Your task to perform on an android device: turn pop-ups off in chrome Image 0: 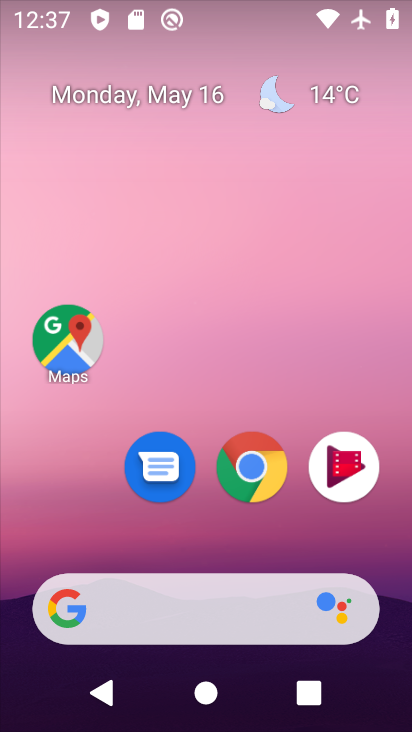
Step 0: drag from (230, 524) to (315, 179)
Your task to perform on an android device: turn pop-ups off in chrome Image 1: 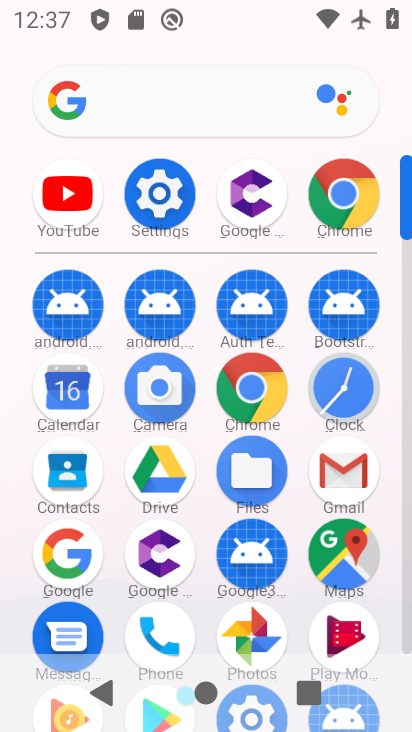
Step 1: click (314, 197)
Your task to perform on an android device: turn pop-ups off in chrome Image 2: 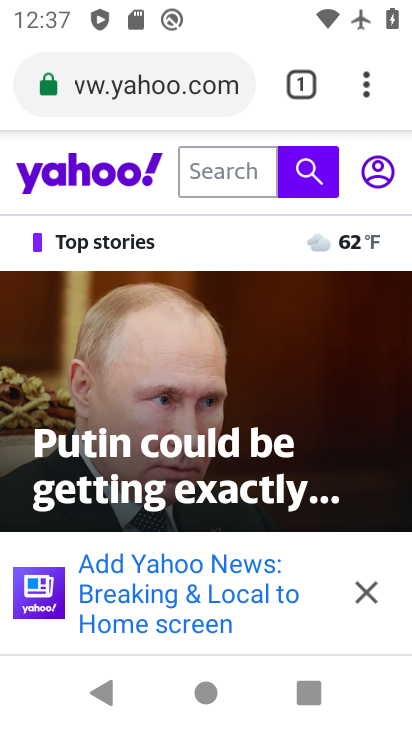
Step 2: click (357, 82)
Your task to perform on an android device: turn pop-ups off in chrome Image 3: 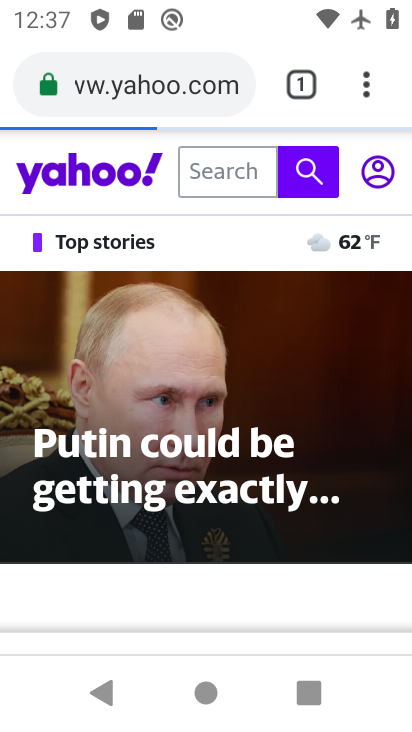
Step 3: click (358, 83)
Your task to perform on an android device: turn pop-ups off in chrome Image 4: 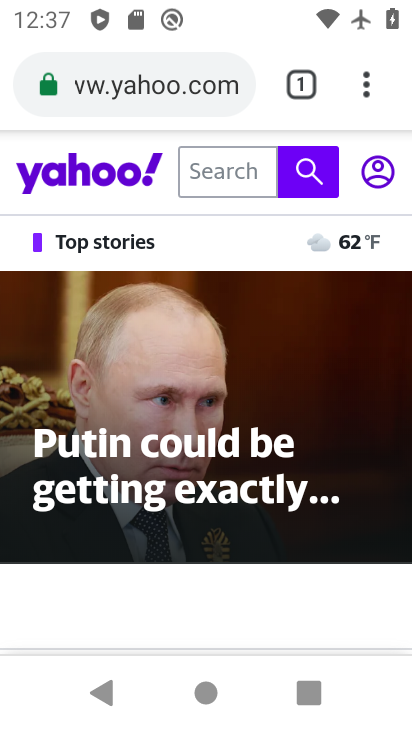
Step 4: click (358, 83)
Your task to perform on an android device: turn pop-ups off in chrome Image 5: 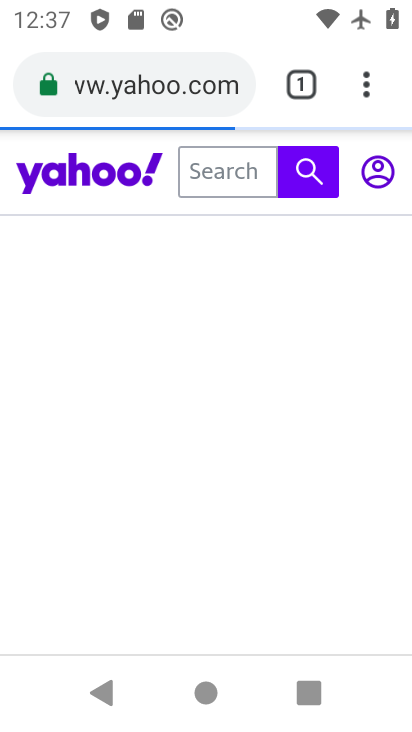
Step 5: click (371, 94)
Your task to perform on an android device: turn pop-ups off in chrome Image 6: 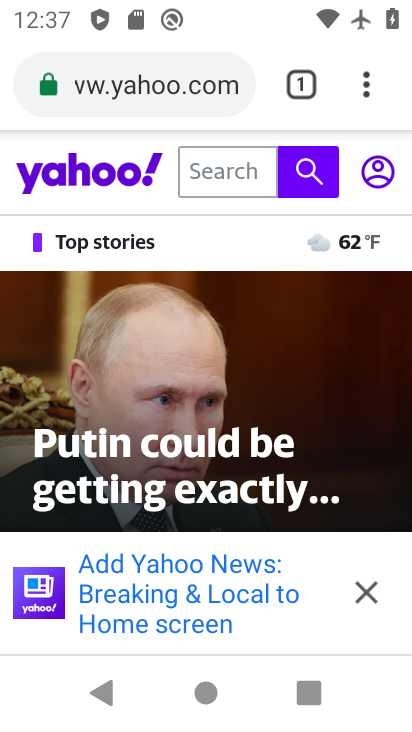
Step 6: click (391, 72)
Your task to perform on an android device: turn pop-ups off in chrome Image 7: 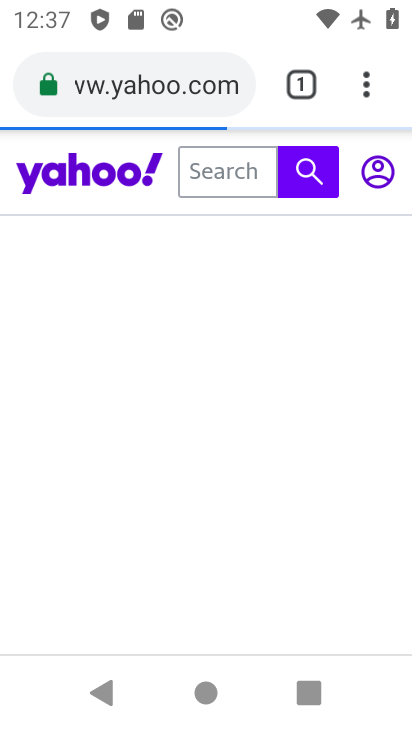
Step 7: click (360, 72)
Your task to perform on an android device: turn pop-ups off in chrome Image 8: 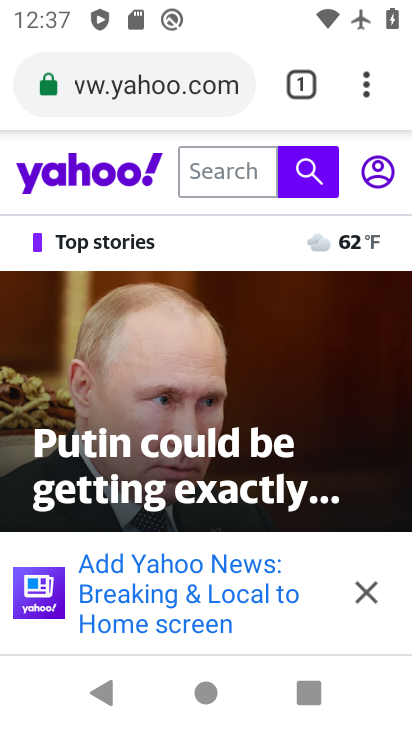
Step 8: click (359, 73)
Your task to perform on an android device: turn pop-ups off in chrome Image 9: 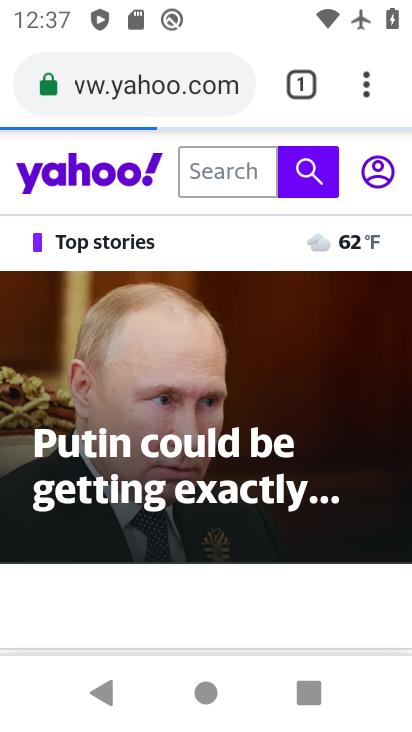
Step 9: click (350, 86)
Your task to perform on an android device: turn pop-ups off in chrome Image 10: 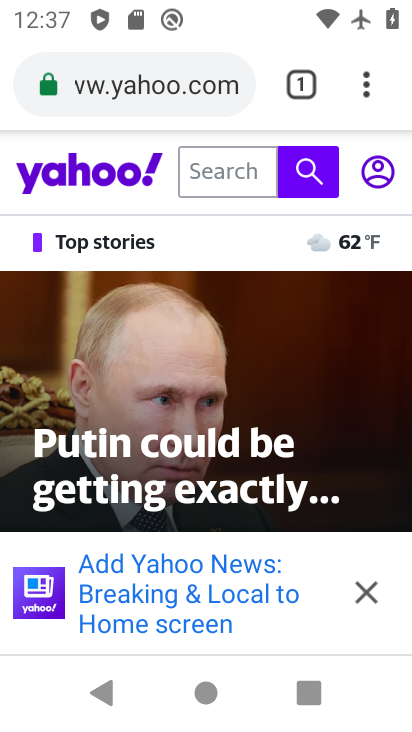
Step 10: click (353, 85)
Your task to perform on an android device: turn pop-ups off in chrome Image 11: 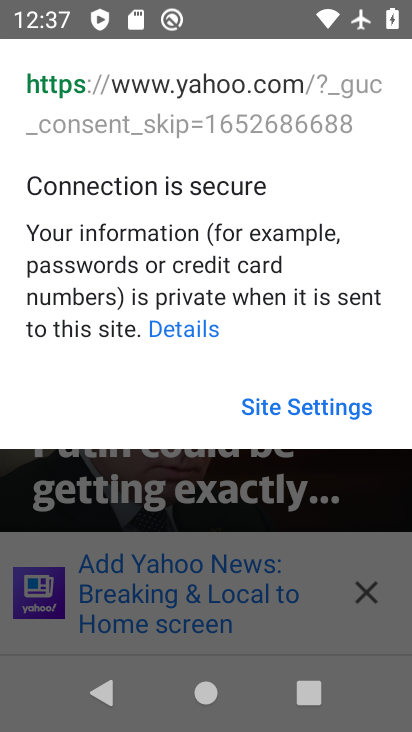
Step 11: click (277, 399)
Your task to perform on an android device: turn pop-ups off in chrome Image 12: 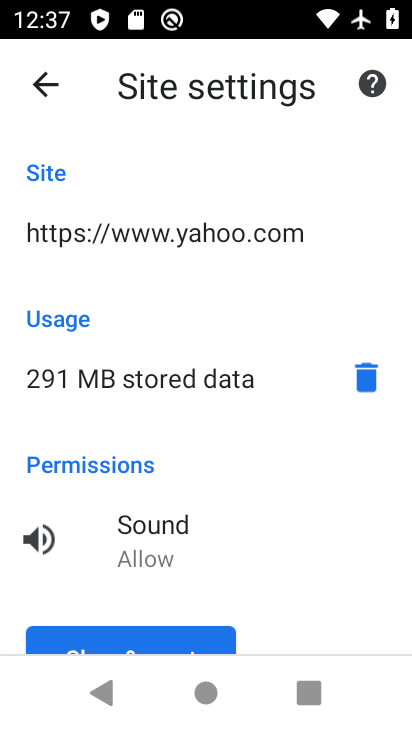
Step 12: press back button
Your task to perform on an android device: turn pop-ups off in chrome Image 13: 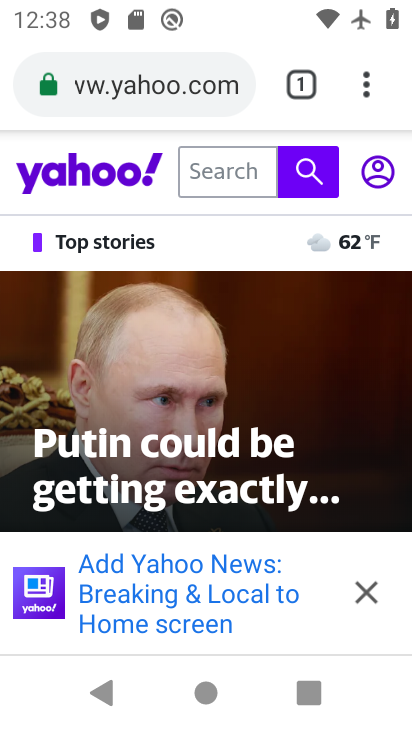
Step 13: click (360, 80)
Your task to perform on an android device: turn pop-ups off in chrome Image 14: 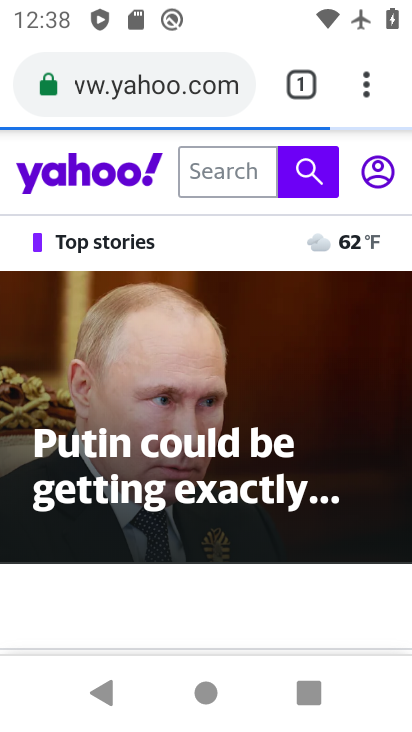
Step 14: click (363, 83)
Your task to perform on an android device: turn pop-ups off in chrome Image 15: 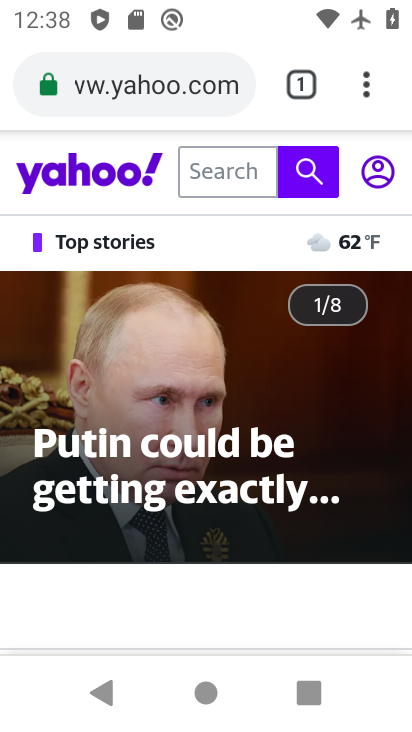
Step 15: click (364, 86)
Your task to perform on an android device: turn pop-ups off in chrome Image 16: 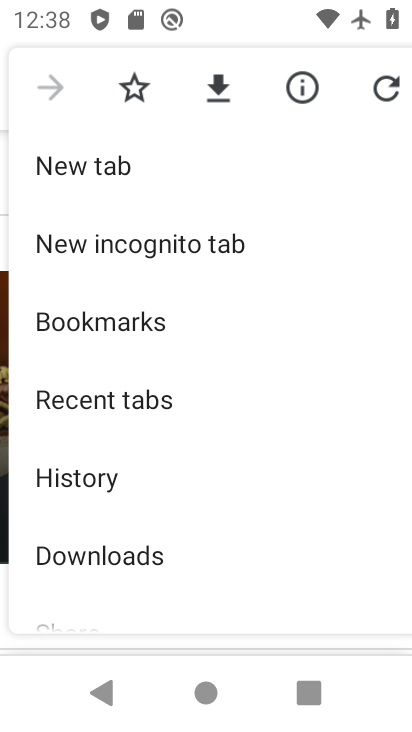
Step 16: drag from (176, 532) to (300, 195)
Your task to perform on an android device: turn pop-ups off in chrome Image 17: 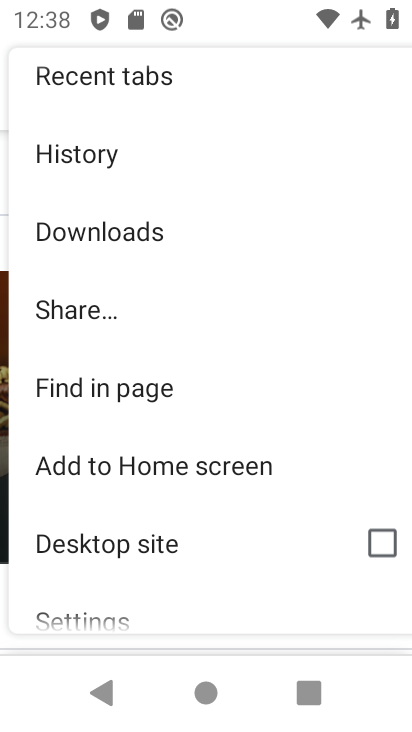
Step 17: drag from (173, 545) to (266, 244)
Your task to perform on an android device: turn pop-ups off in chrome Image 18: 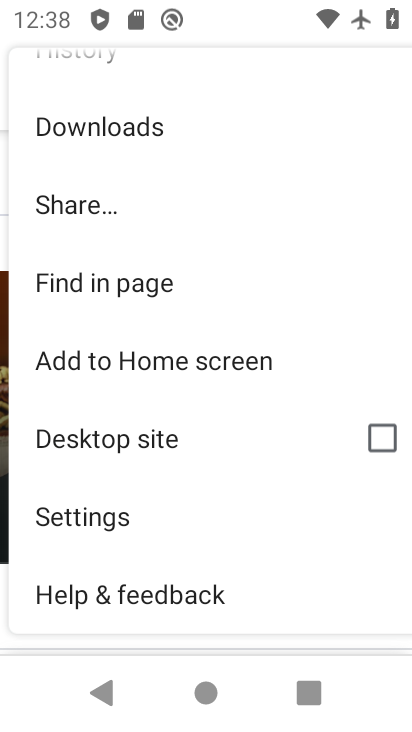
Step 18: click (100, 508)
Your task to perform on an android device: turn pop-ups off in chrome Image 19: 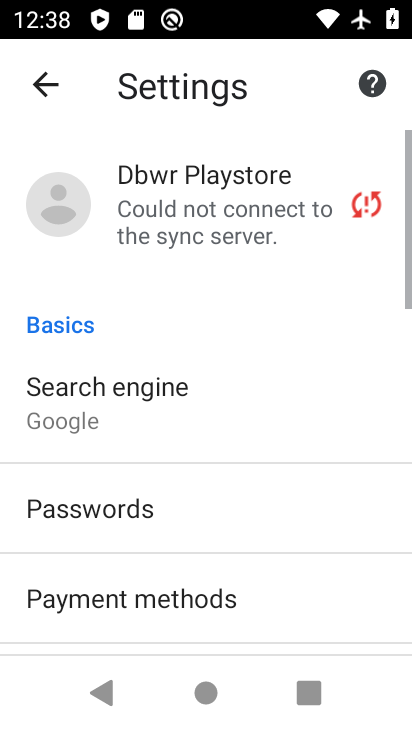
Step 19: drag from (109, 575) to (274, 219)
Your task to perform on an android device: turn pop-ups off in chrome Image 20: 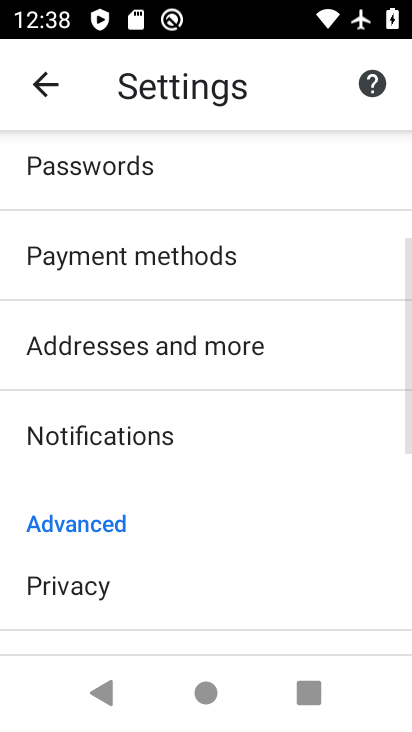
Step 20: drag from (186, 539) to (325, 174)
Your task to perform on an android device: turn pop-ups off in chrome Image 21: 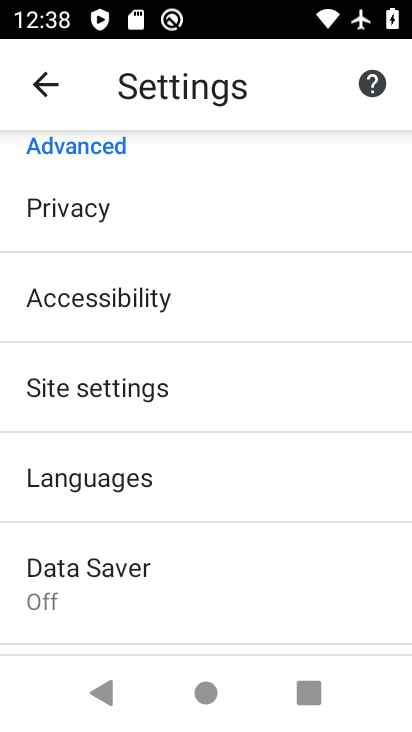
Step 21: drag from (125, 541) to (193, 335)
Your task to perform on an android device: turn pop-ups off in chrome Image 22: 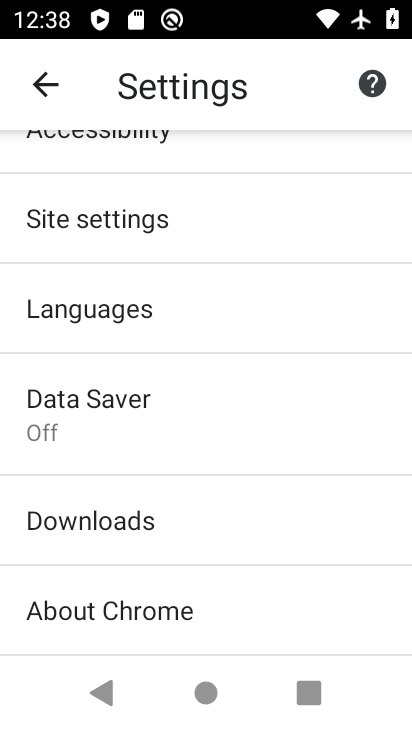
Step 22: drag from (84, 570) to (204, 337)
Your task to perform on an android device: turn pop-ups off in chrome Image 23: 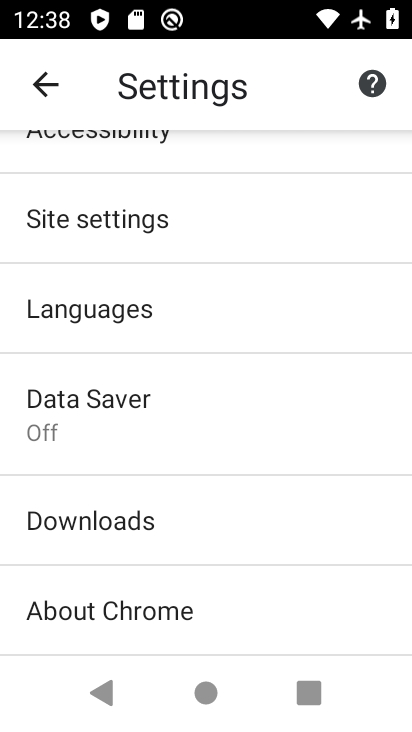
Step 23: click (170, 229)
Your task to perform on an android device: turn pop-ups off in chrome Image 24: 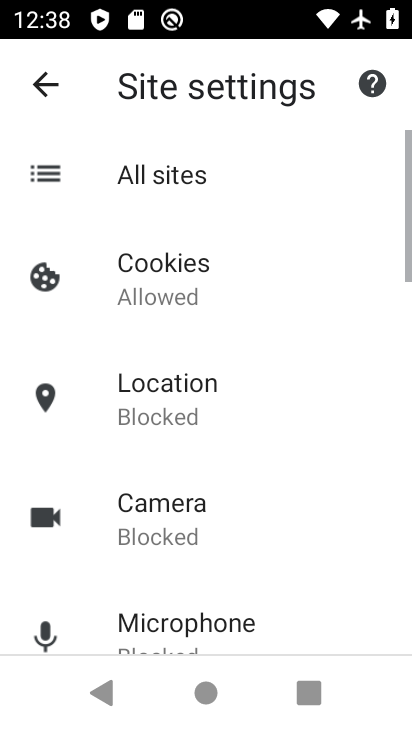
Step 24: drag from (106, 624) to (238, 203)
Your task to perform on an android device: turn pop-ups off in chrome Image 25: 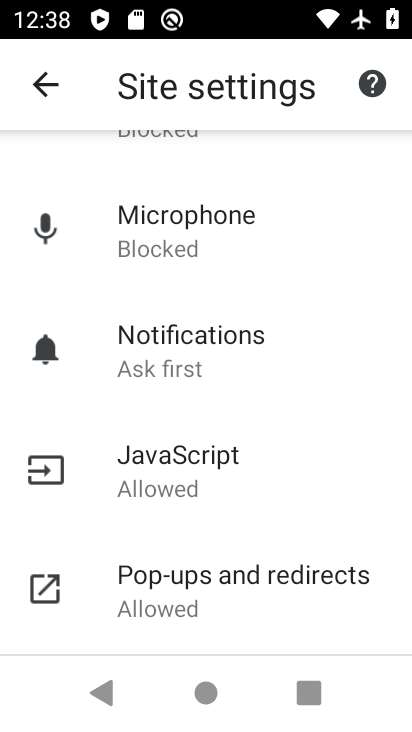
Step 25: drag from (180, 597) to (258, 384)
Your task to perform on an android device: turn pop-ups off in chrome Image 26: 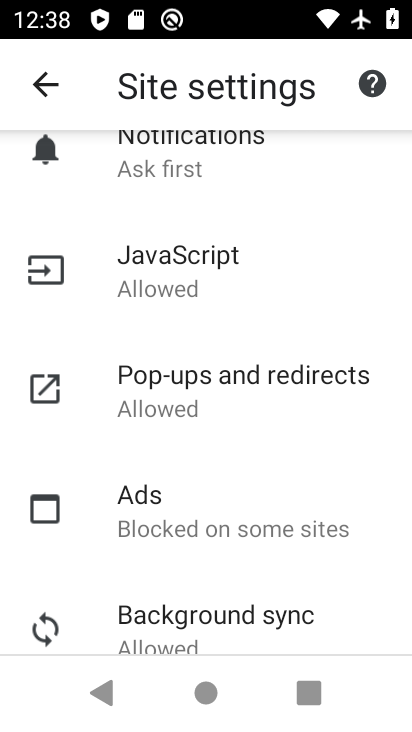
Step 26: click (247, 385)
Your task to perform on an android device: turn pop-ups off in chrome Image 27: 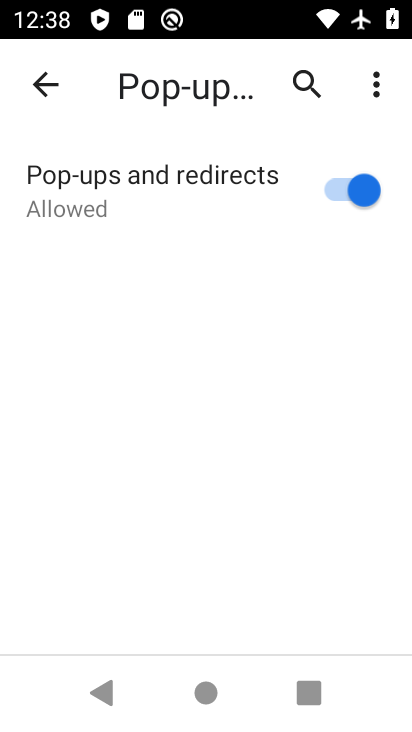
Step 27: click (335, 183)
Your task to perform on an android device: turn pop-ups off in chrome Image 28: 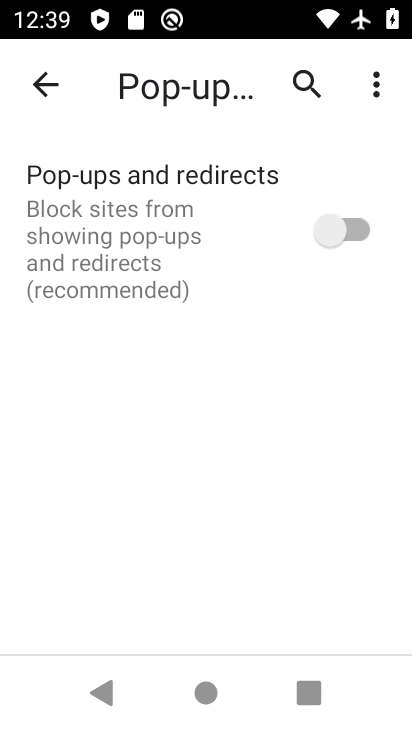
Step 28: task complete